Your task to perform on an android device: turn off notifications settings in the gmail app Image 0: 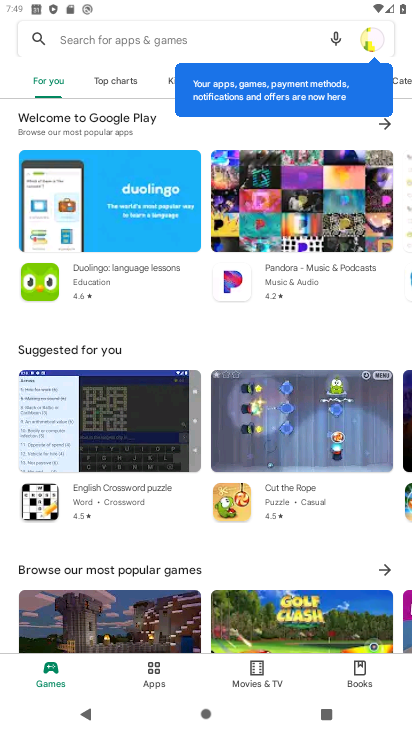
Step 0: press home button
Your task to perform on an android device: turn off notifications settings in the gmail app Image 1: 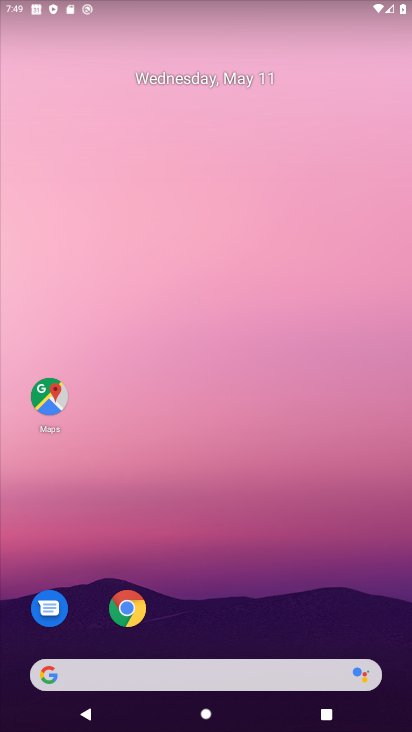
Step 1: drag from (247, 594) to (158, 88)
Your task to perform on an android device: turn off notifications settings in the gmail app Image 2: 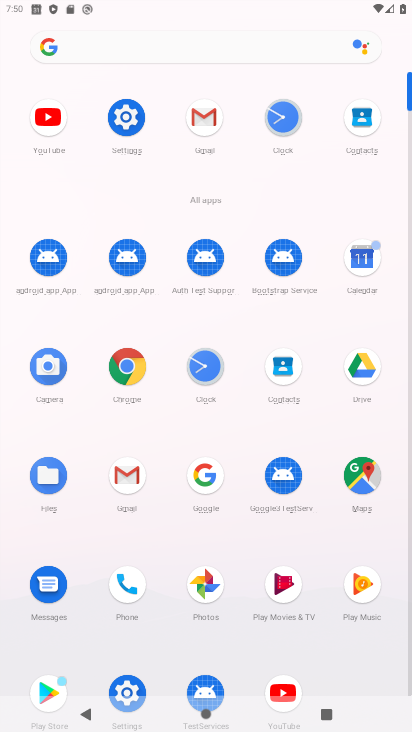
Step 2: click (126, 474)
Your task to perform on an android device: turn off notifications settings in the gmail app Image 3: 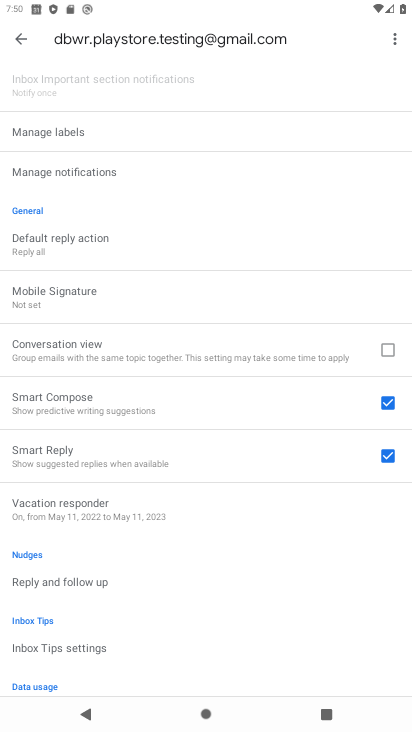
Step 3: drag from (194, 215) to (201, 576)
Your task to perform on an android device: turn off notifications settings in the gmail app Image 4: 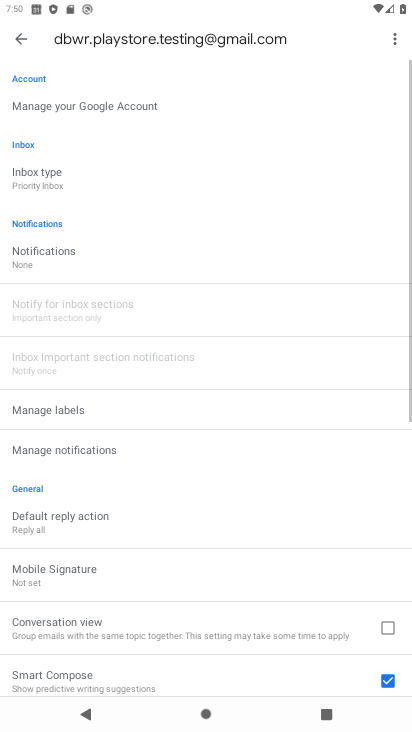
Step 4: click (85, 254)
Your task to perform on an android device: turn off notifications settings in the gmail app Image 5: 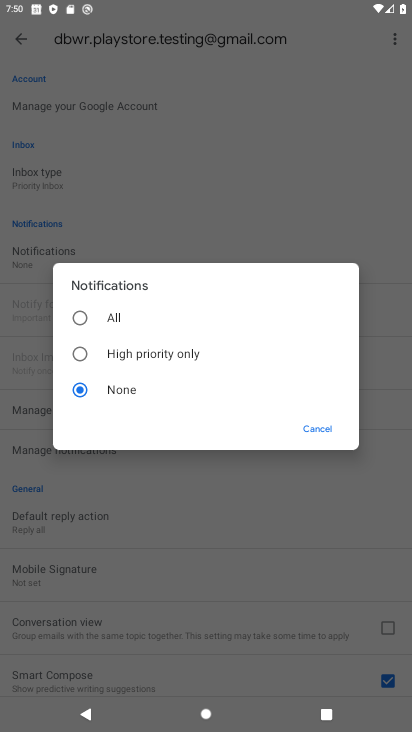
Step 5: task complete